Your task to perform on an android device: Go to Amazon Image 0: 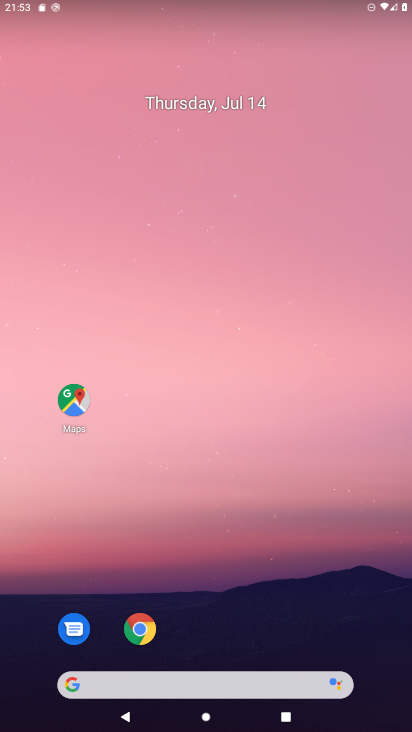
Step 0: click (136, 630)
Your task to perform on an android device: Go to Amazon Image 1: 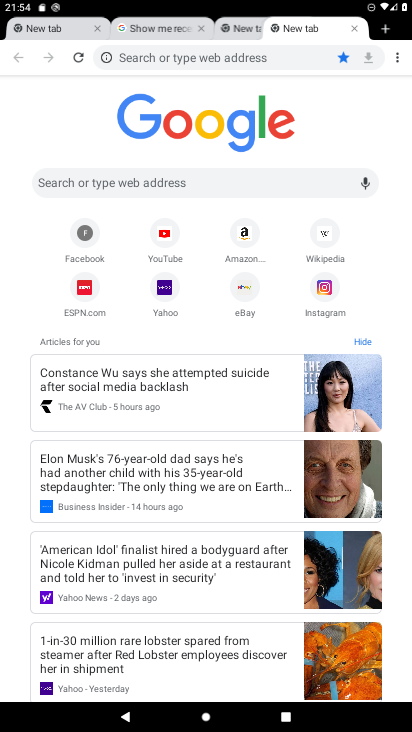
Step 1: click (252, 236)
Your task to perform on an android device: Go to Amazon Image 2: 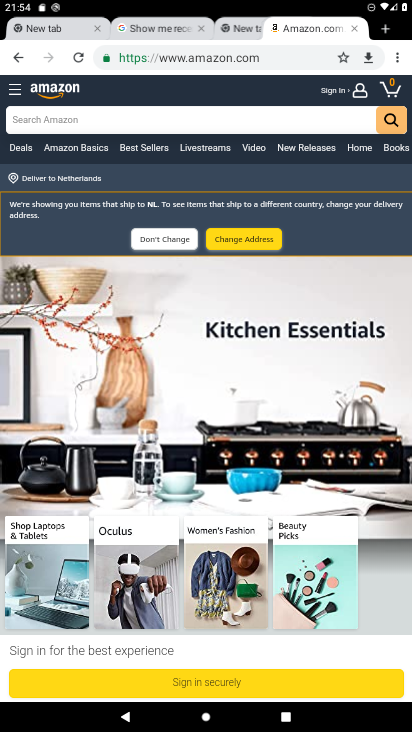
Step 2: task complete